Your task to perform on an android device: change notification settings in the gmail app Image 0: 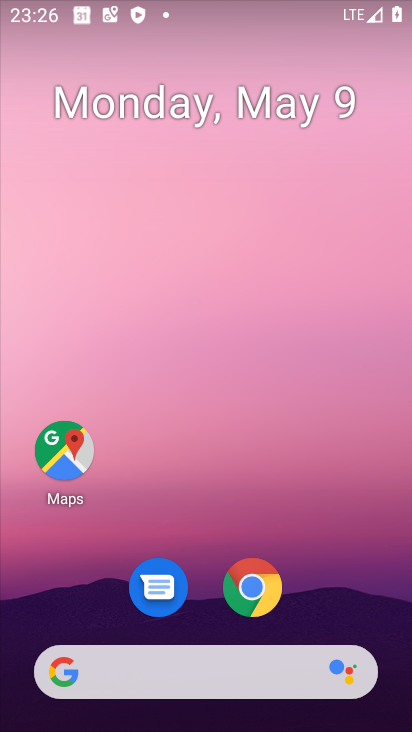
Step 0: drag from (212, 601) to (200, 309)
Your task to perform on an android device: change notification settings in the gmail app Image 1: 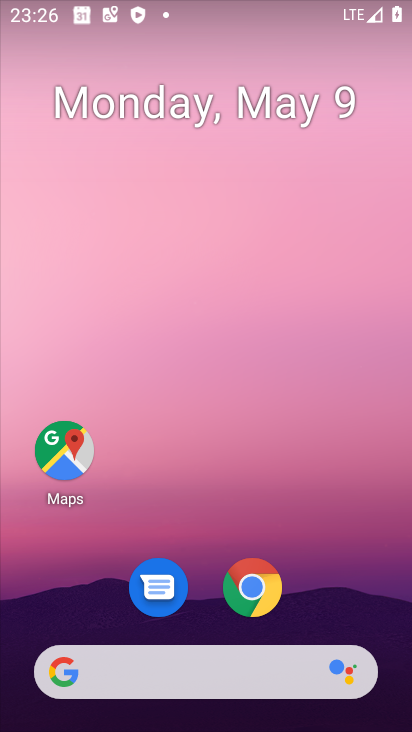
Step 1: drag from (199, 623) to (195, 67)
Your task to perform on an android device: change notification settings in the gmail app Image 2: 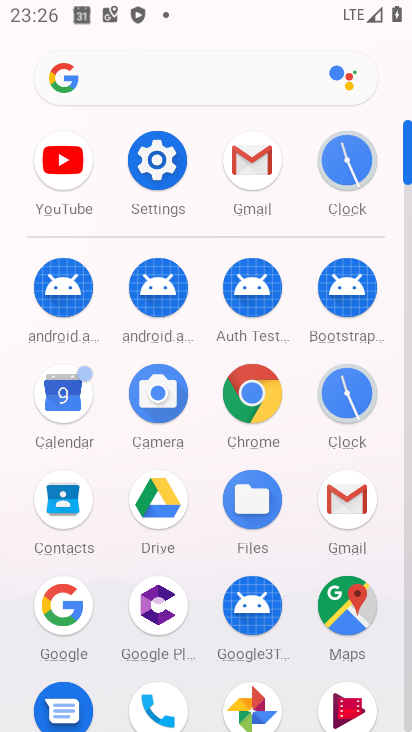
Step 2: click (158, 167)
Your task to perform on an android device: change notification settings in the gmail app Image 3: 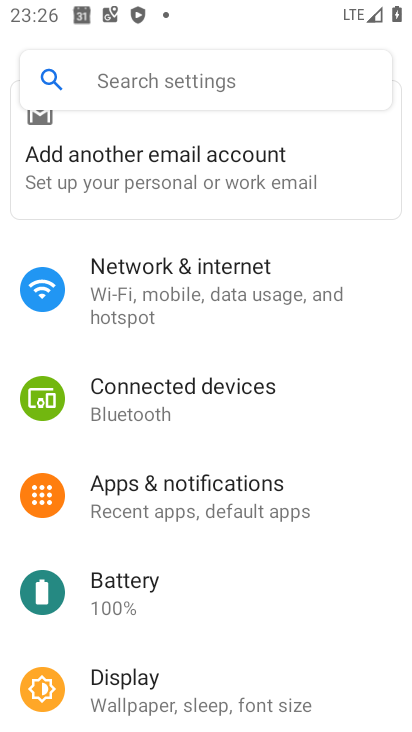
Step 3: click (198, 502)
Your task to perform on an android device: change notification settings in the gmail app Image 4: 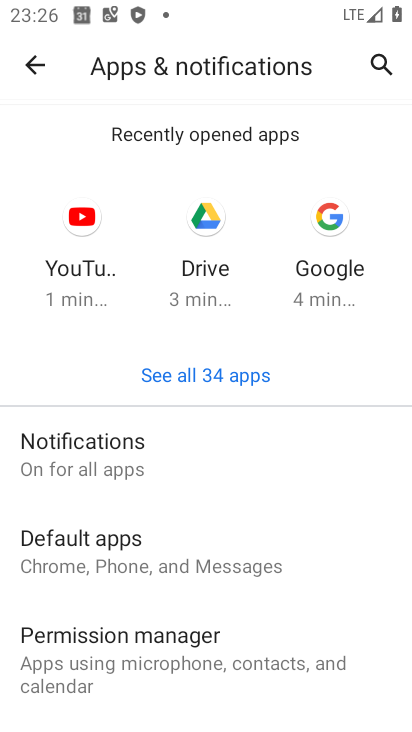
Step 4: drag from (196, 660) to (206, 120)
Your task to perform on an android device: change notification settings in the gmail app Image 5: 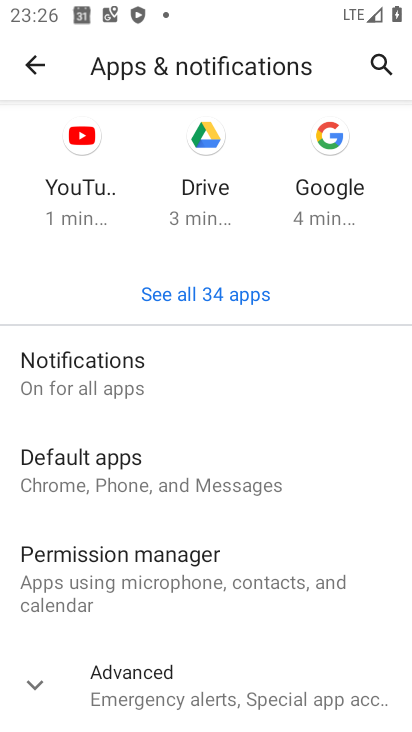
Step 5: drag from (131, 529) to (169, 103)
Your task to perform on an android device: change notification settings in the gmail app Image 6: 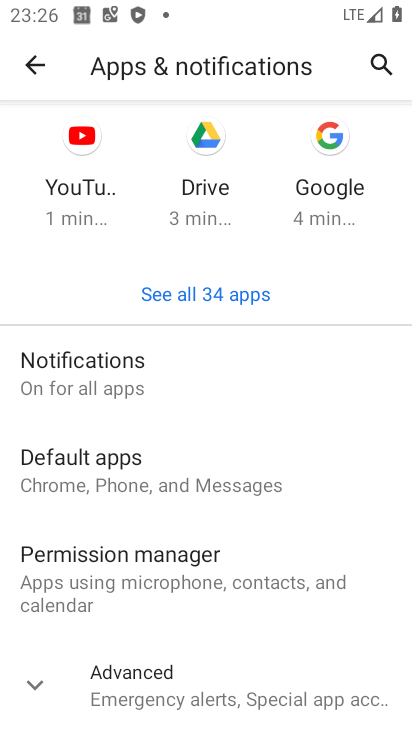
Step 6: click (146, 678)
Your task to perform on an android device: change notification settings in the gmail app Image 7: 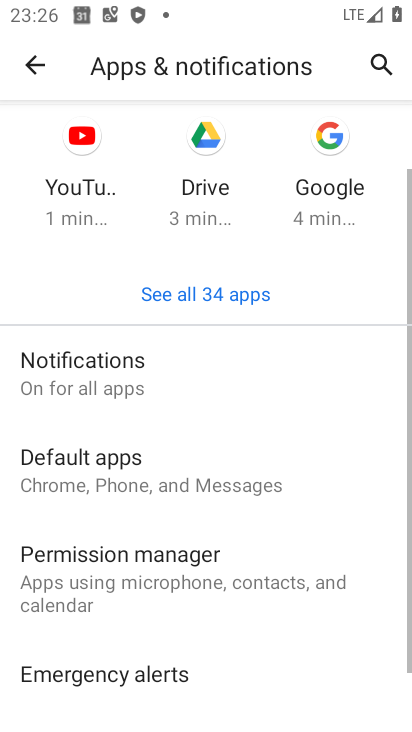
Step 7: drag from (146, 678) to (186, 332)
Your task to perform on an android device: change notification settings in the gmail app Image 8: 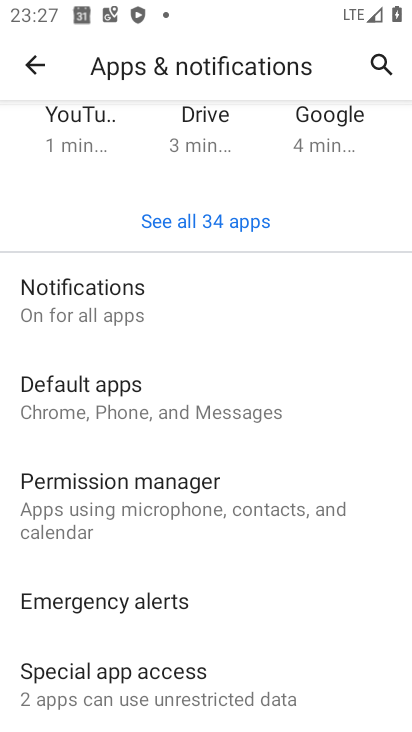
Step 8: drag from (130, 705) to (159, 417)
Your task to perform on an android device: change notification settings in the gmail app Image 9: 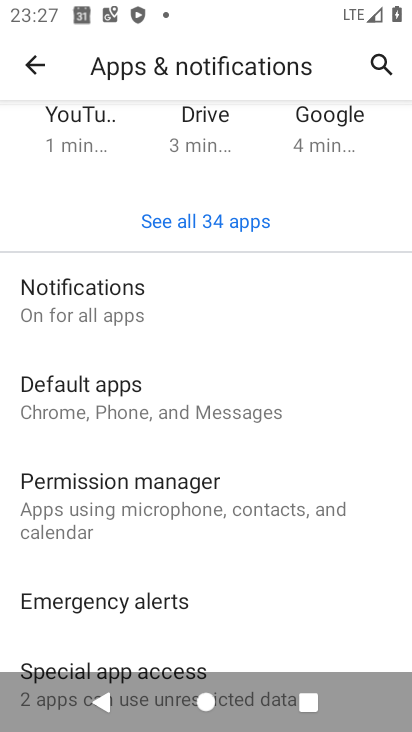
Step 9: drag from (160, 564) to (191, 239)
Your task to perform on an android device: change notification settings in the gmail app Image 10: 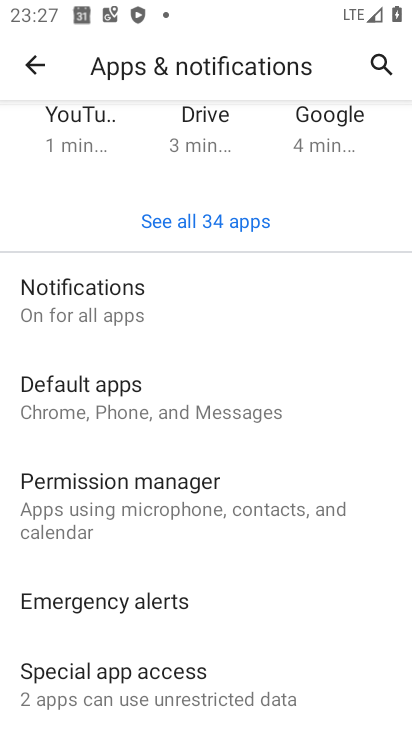
Step 10: drag from (182, 648) to (194, 228)
Your task to perform on an android device: change notification settings in the gmail app Image 11: 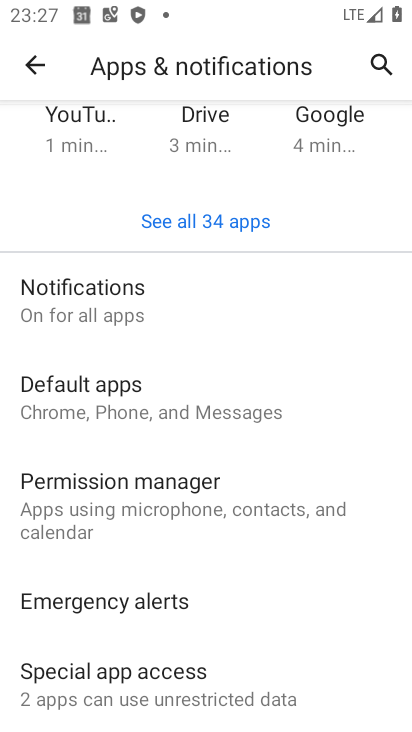
Step 11: click (175, 319)
Your task to perform on an android device: change notification settings in the gmail app Image 12: 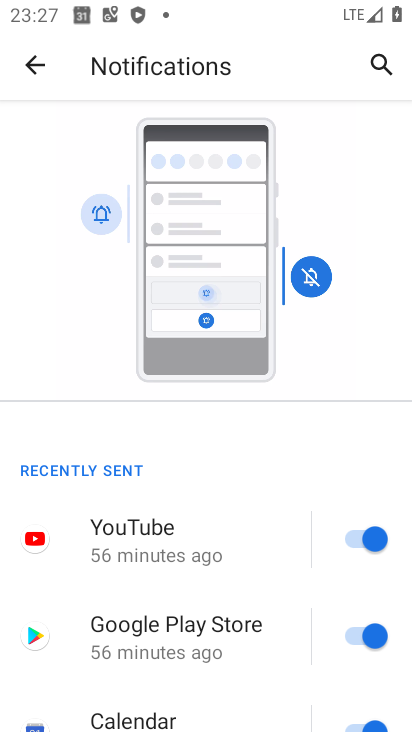
Step 12: click (38, 69)
Your task to perform on an android device: change notification settings in the gmail app Image 13: 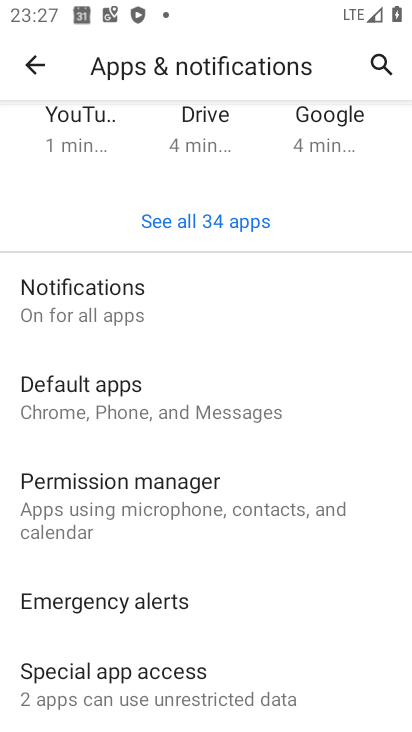
Step 13: click (162, 211)
Your task to perform on an android device: change notification settings in the gmail app Image 14: 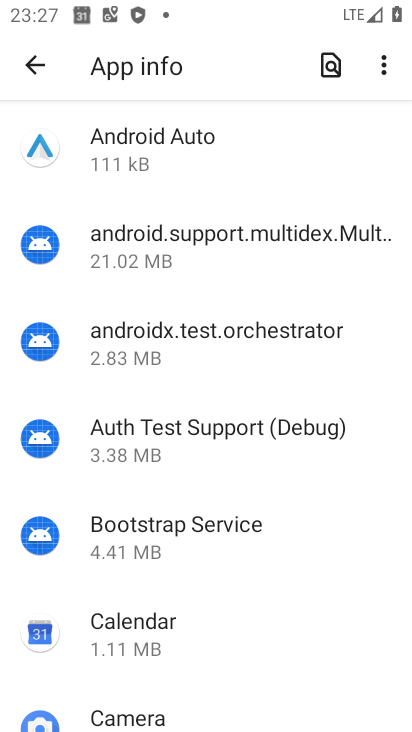
Step 14: drag from (184, 616) to (213, 132)
Your task to perform on an android device: change notification settings in the gmail app Image 15: 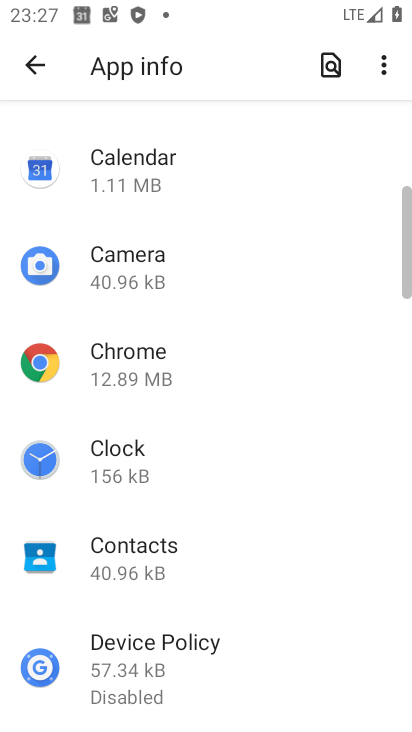
Step 15: drag from (161, 549) to (194, 98)
Your task to perform on an android device: change notification settings in the gmail app Image 16: 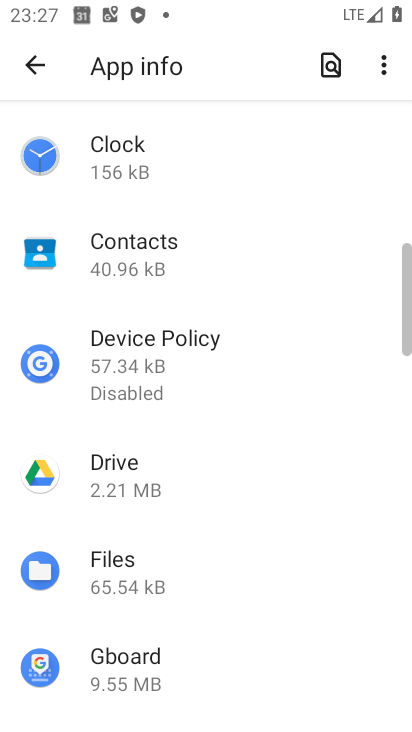
Step 16: drag from (152, 618) to (203, 133)
Your task to perform on an android device: change notification settings in the gmail app Image 17: 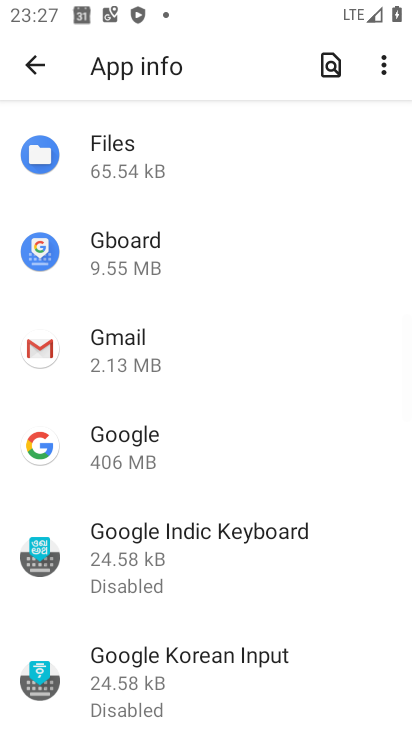
Step 17: click (178, 364)
Your task to perform on an android device: change notification settings in the gmail app Image 18: 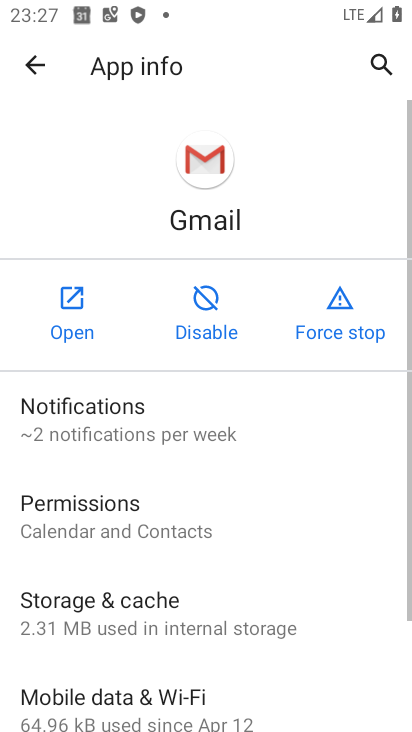
Step 18: drag from (186, 634) to (229, 299)
Your task to perform on an android device: change notification settings in the gmail app Image 19: 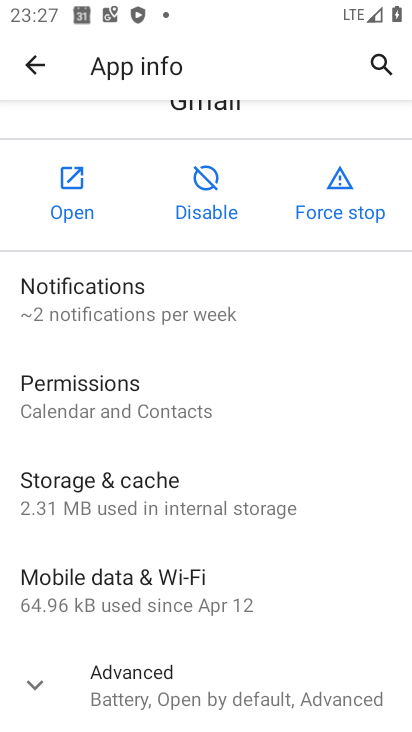
Step 19: click (217, 283)
Your task to perform on an android device: change notification settings in the gmail app Image 20: 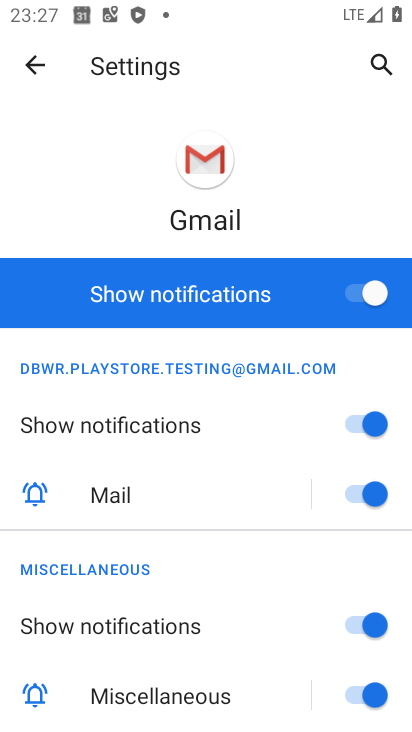
Step 20: drag from (149, 651) to (219, 264)
Your task to perform on an android device: change notification settings in the gmail app Image 21: 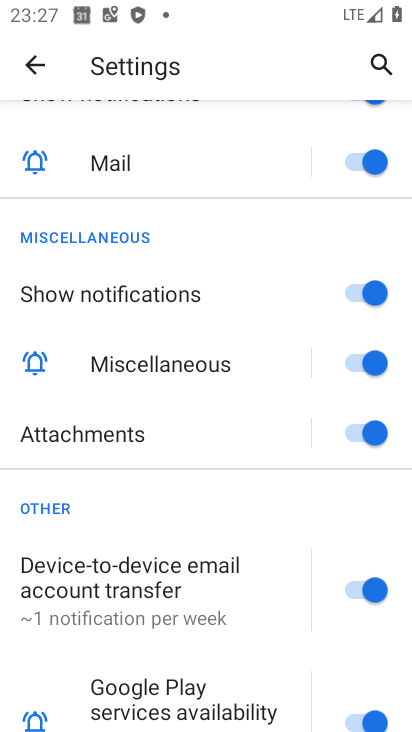
Step 21: click (383, 599)
Your task to perform on an android device: change notification settings in the gmail app Image 22: 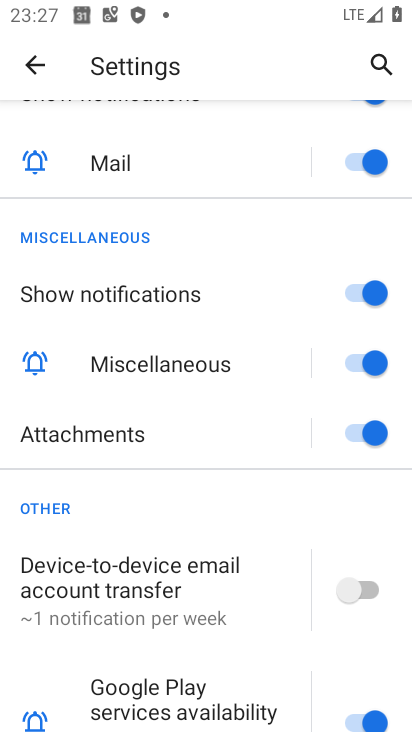
Step 22: click (352, 426)
Your task to perform on an android device: change notification settings in the gmail app Image 23: 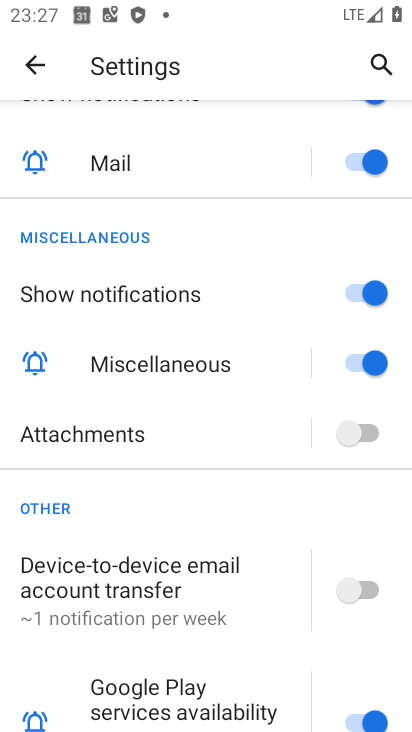
Step 23: click (357, 358)
Your task to perform on an android device: change notification settings in the gmail app Image 24: 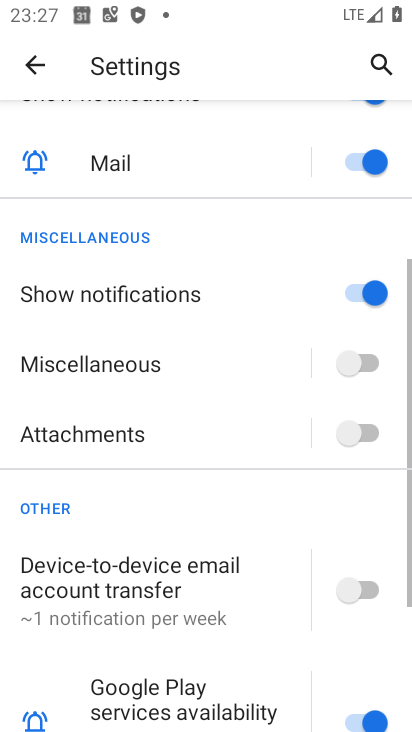
Step 24: click (360, 281)
Your task to perform on an android device: change notification settings in the gmail app Image 25: 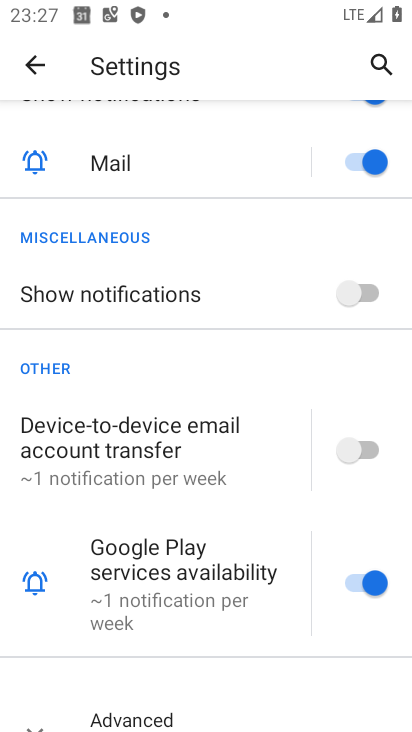
Step 25: task complete